Your task to perform on an android device: Open the downloads Image 0: 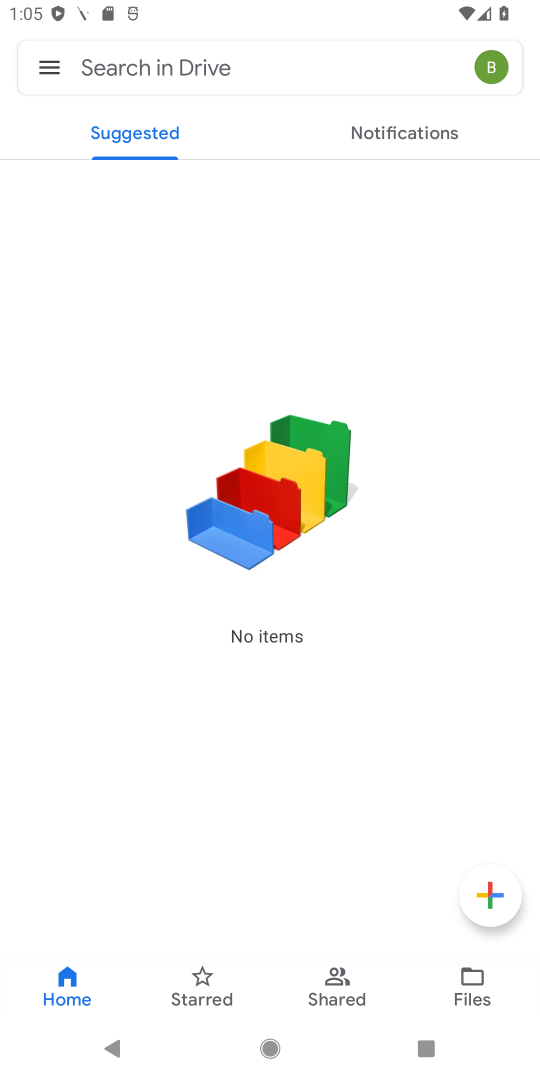
Step 0: press home button
Your task to perform on an android device: Open the downloads Image 1: 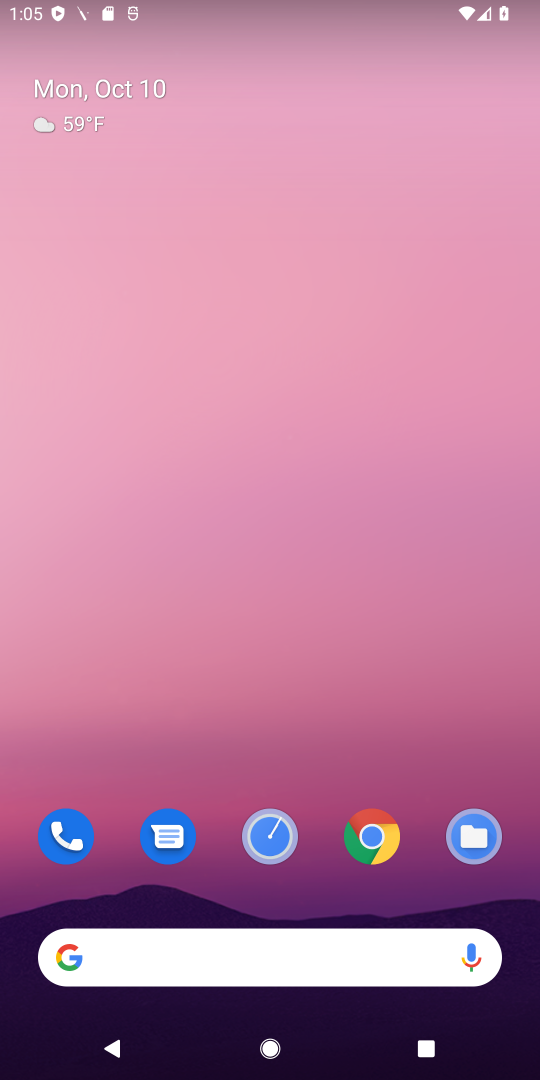
Step 1: drag from (321, 794) to (317, 361)
Your task to perform on an android device: Open the downloads Image 2: 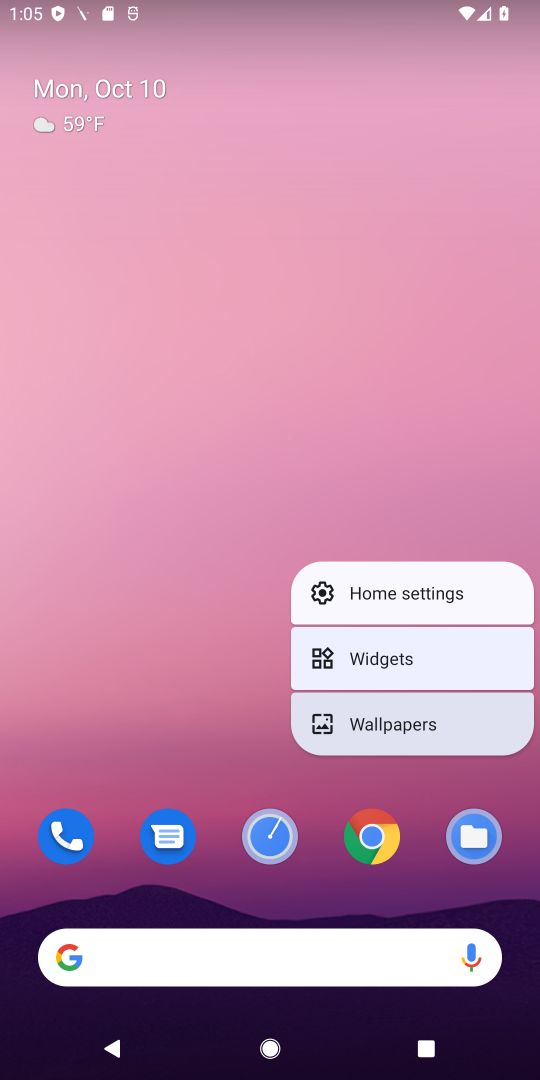
Step 2: click (289, 410)
Your task to perform on an android device: Open the downloads Image 3: 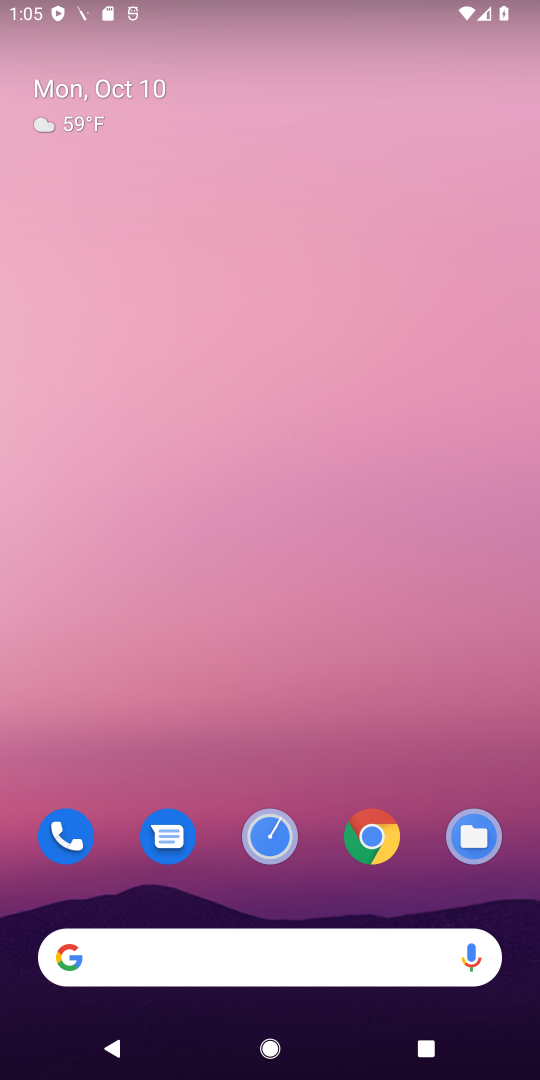
Step 3: drag from (344, 780) to (306, 369)
Your task to perform on an android device: Open the downloads Image 4: 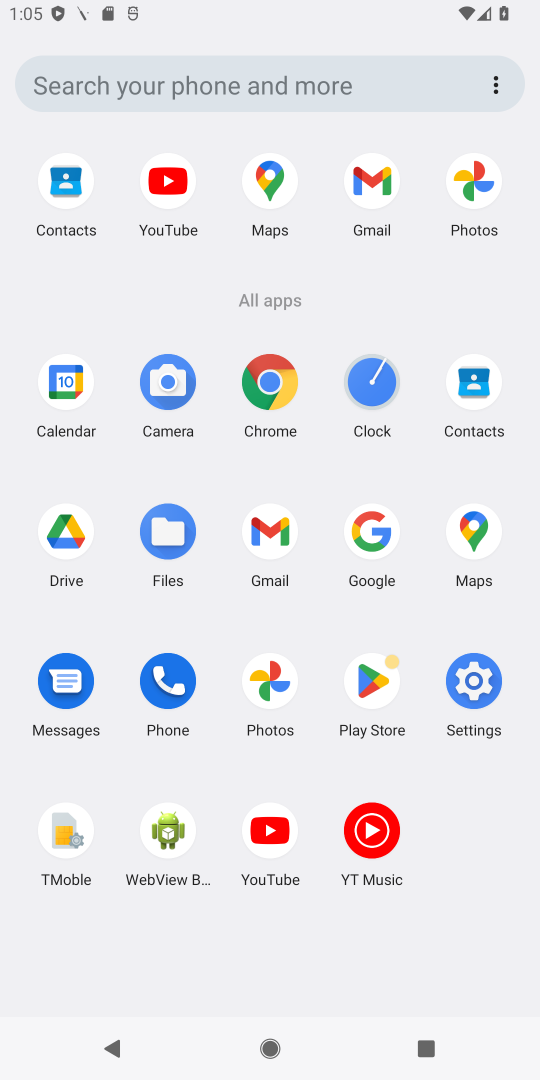
Step 4: click (161, 533)
Your task to perform on an android device: Open the downloads Image 5: 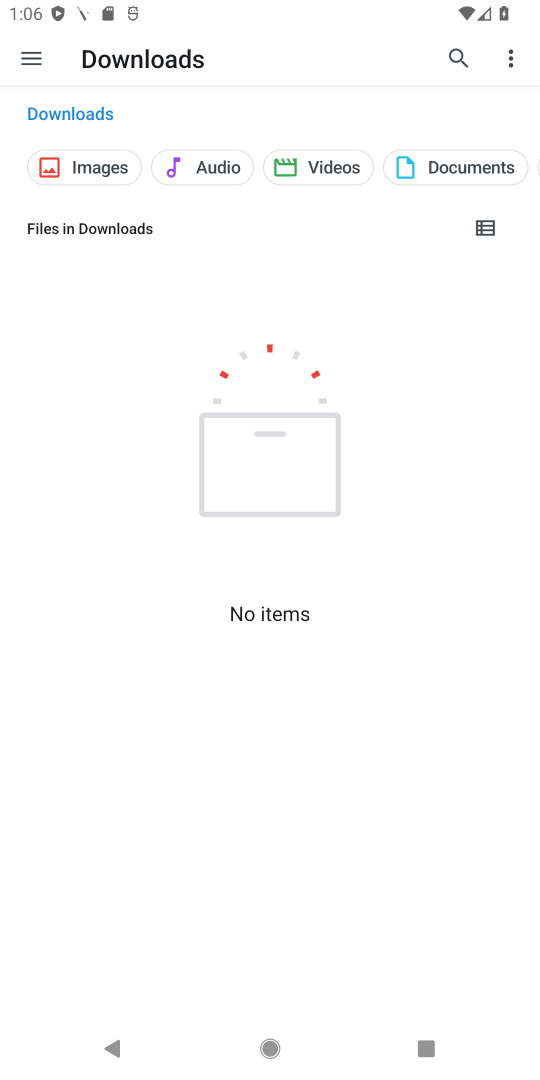
Step 5: task complete